Your task to perform on an android device: find snoozed emails in the gmail app Image 0: 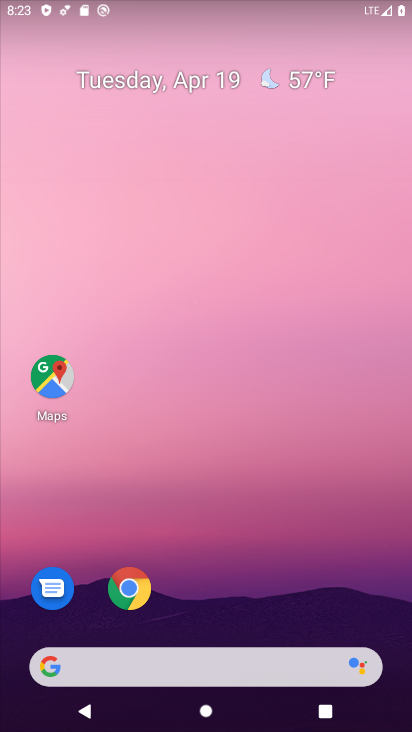
Step 0: drag from (243, 570) to (254, 39)
Your task to perform on an android device: find snoozed emails in the gmail app Image 1: 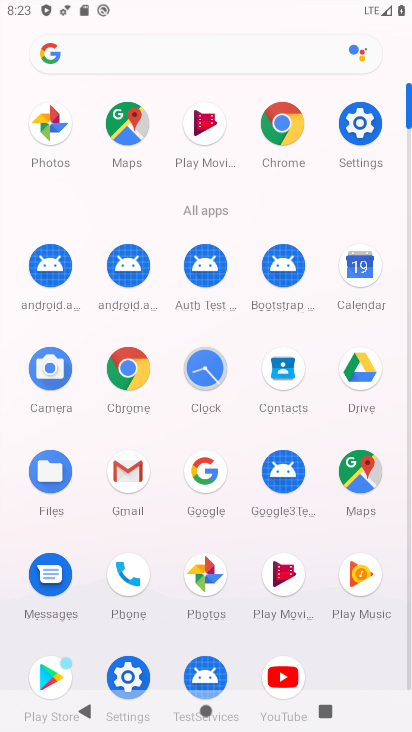
Step 1: click (129, 476)
Your task to perform on an android device: find snoozed emails in the gmail app Image 2: 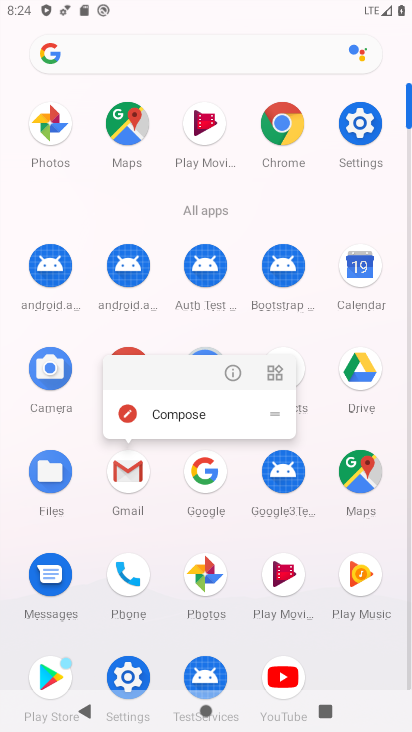
Step 2: click (129, 473)
Your task to perform on an android device: find snoozed emails in the gmail app Image 3: 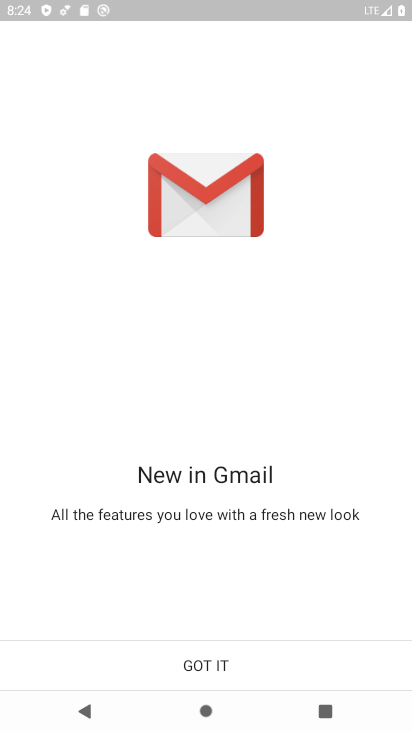
Step 3: click (212, 659)
Your task to perform on an android device: find snoozed emails in the gmail app Image 4: 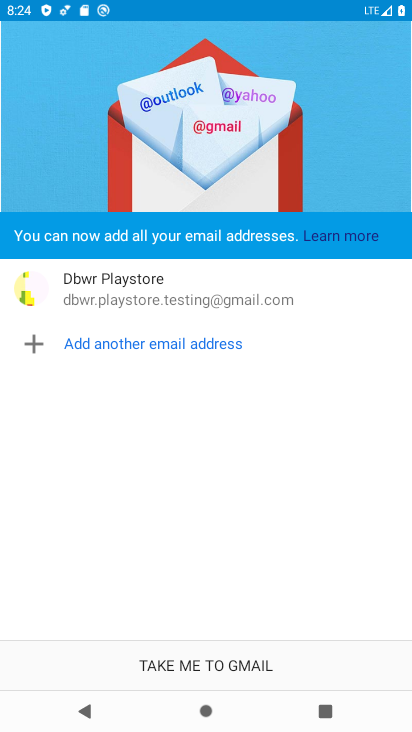
Step 4: click (207, 652)
Your task to perform on an android device: find snoozed emails in the gmail app Image 5: 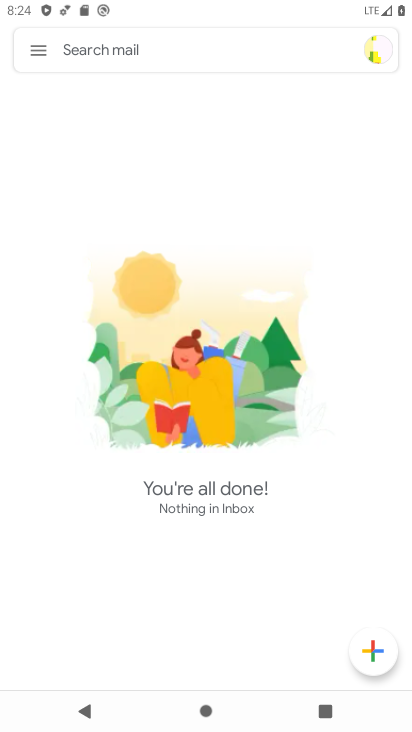
Step 5: click (47, 58)
Your task to perform on an android device: find snoozed emails in the gmail app Image 6: 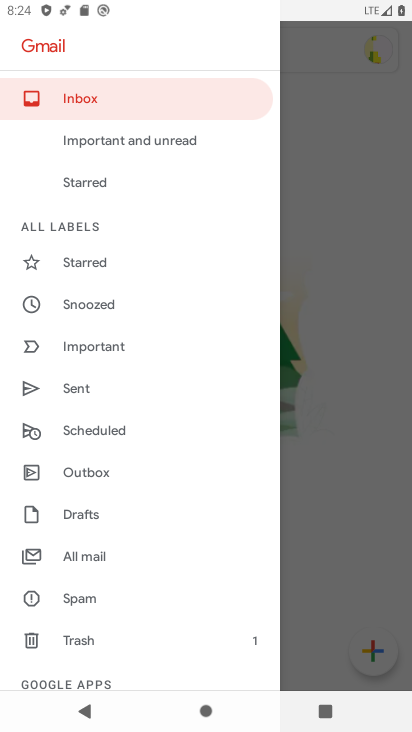
Step 6: click (111, 308)
Your task to perform on an android device: find snoozed emails in the gmail app Image 7: 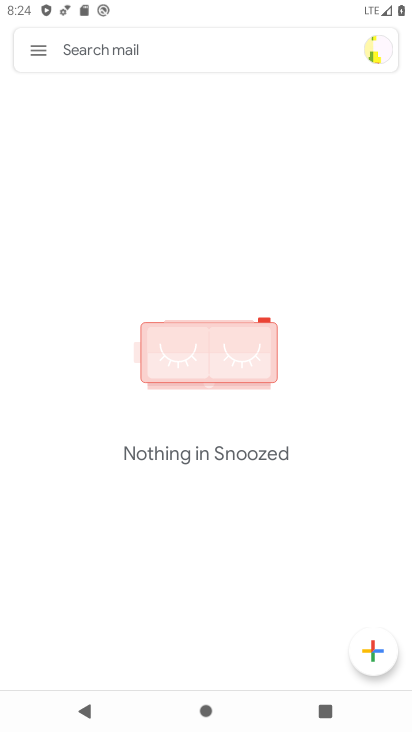
Step 7: task complete